Your task to perform on an android device: turn on showing notifications on the lock screen Image 0: 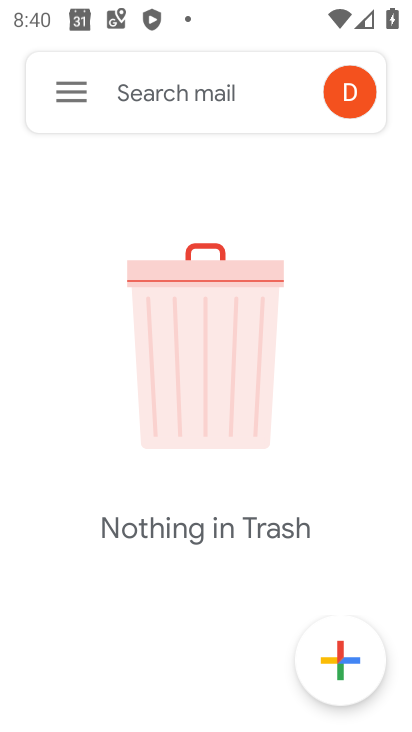
Step 0: press home button
Your task to perform on an android device: turn on showing notifications on the lock screen Image 1: 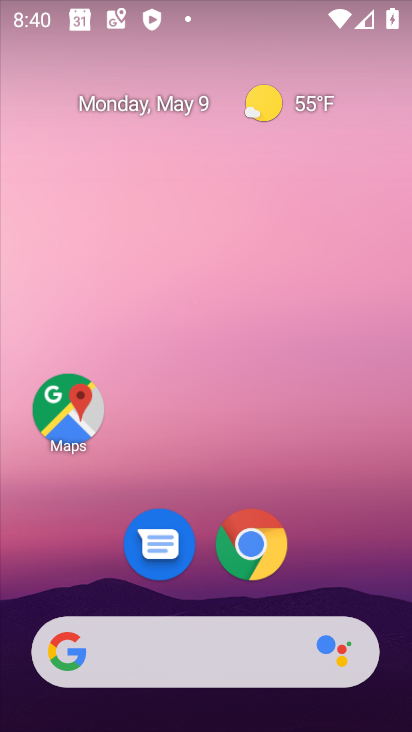
Step 1: drag from (204, 581) to (259, 78)
Your task to perform on an android device: turn on showing notifications on the lock screen Image 2: 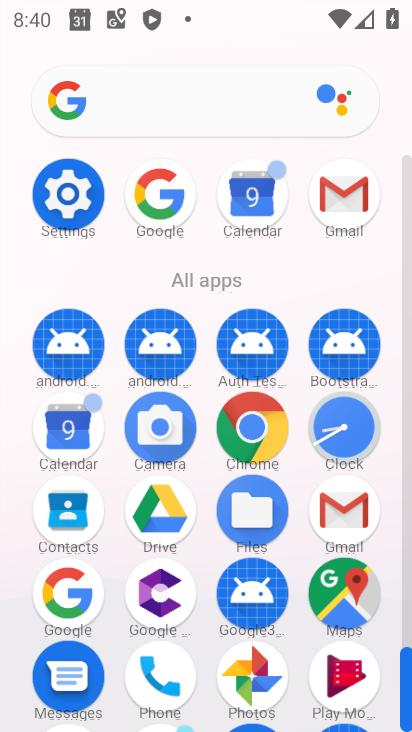
Step 2: click (97, 180)
Your task to perform on an android device: turn on showing notifications on the lock screen Image 3: 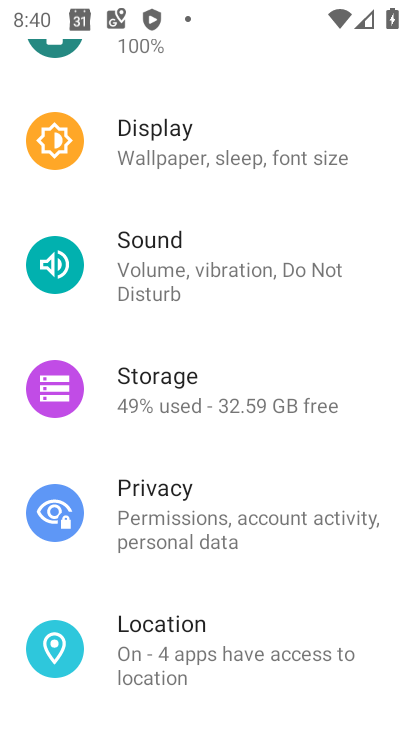
Step 3: drag from (263, 249) to (275, 593)
Your task to perform on an android device: turn on showing notifications on the lock screen Image 4: 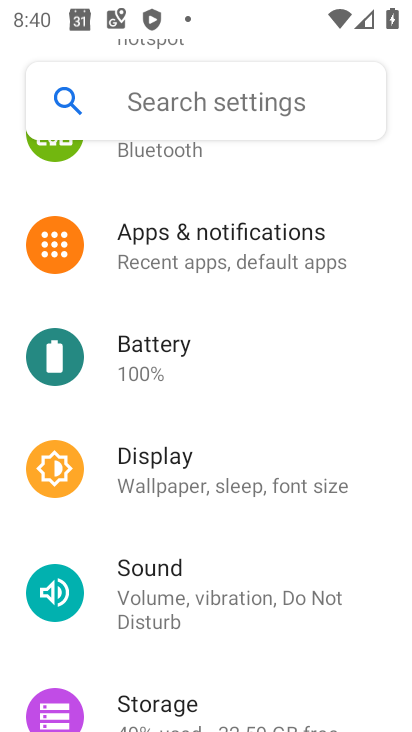
Step 4: click (222, 245)
Your task to perform on an android device: turn on showing notifications on the lock screen Image 5: 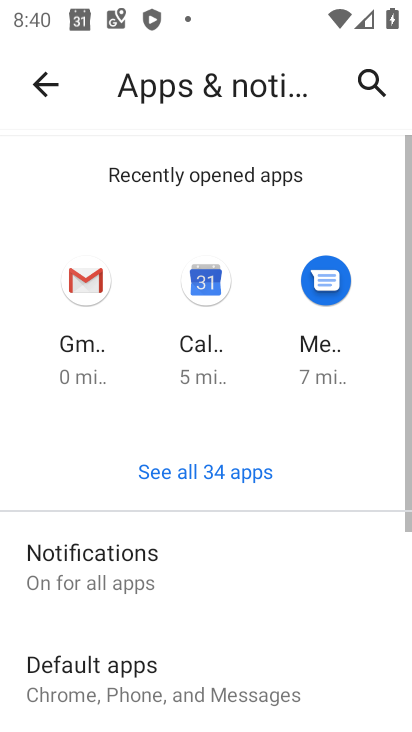
Step 5: drag from (160, 632) to (212, 409)
Your task to perform on an android device: turn on showing notifications on the lock screen Image 6: 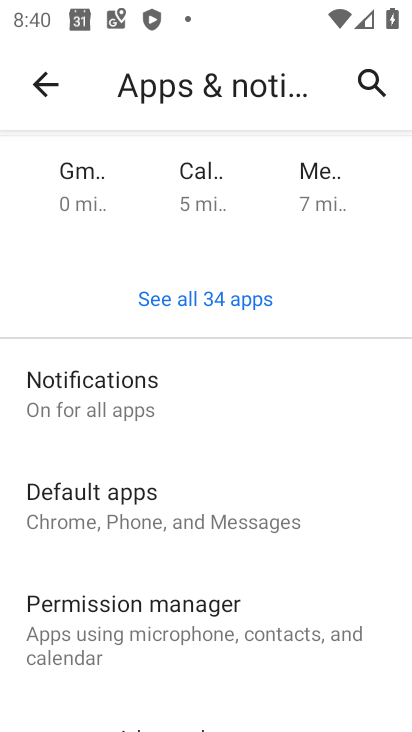
Step 6: click (175, 406)
Your task to perform on an android device: turn on showing notifications on the lock screen Image 7: 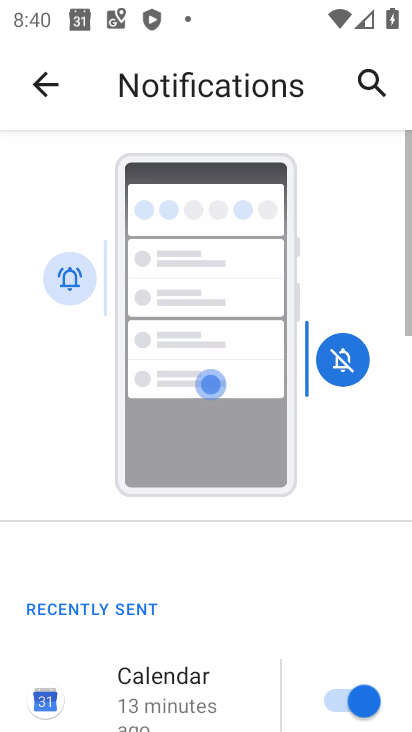
Step 7: drag from (233, 628) to (291, 178)
Your task to perform on an android device: turn on showing notifications on the lock screen Image 8: 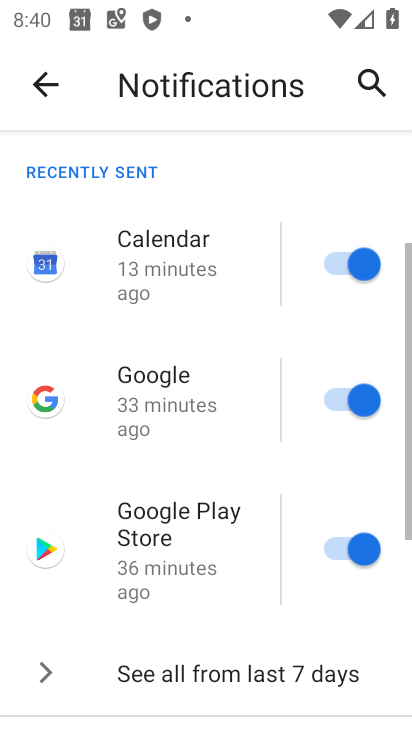
Step 8: drag from (226, 574) to (278, 220)
Your task to perform on an android device: turn on showing notifications on the lock screen Image 9: 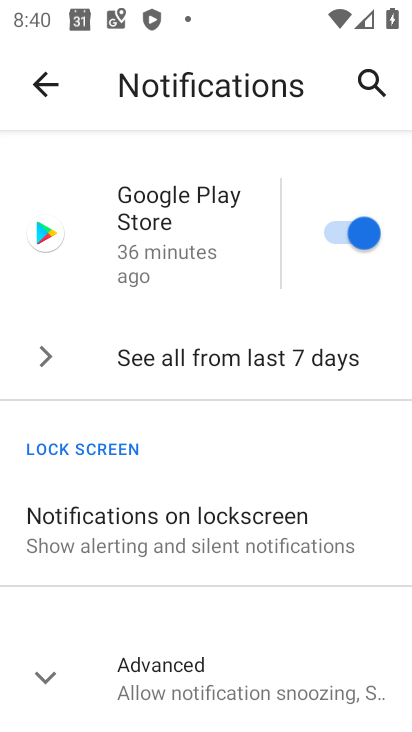
Step 9: drag from (219, 616) to (225, 562)
Your task to perform on an android device: turn on showing notifications on the lock screen Image 10: 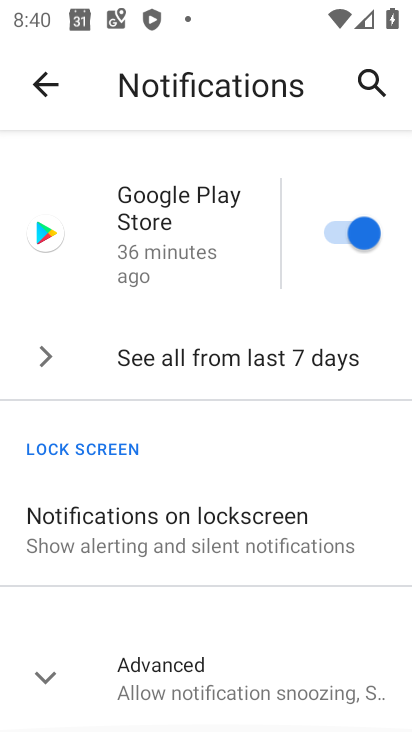
Step 10: click (225, 559)
Your task to perform on an android device: turn on showing notifications on the lock screen Image 11: 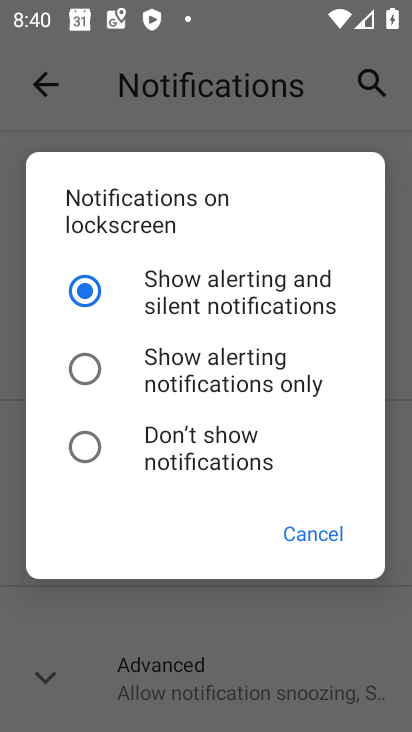
Step 11: task complete